Your task to perform on an android device: Go to Android settings Image 0: 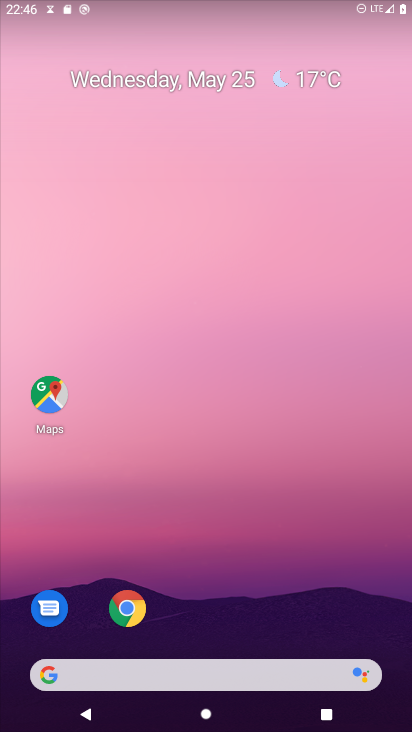
Step 0: drag from (235, 379) to (183, 25)
Your task to perform on an android device: Go to Android settings Image 1: 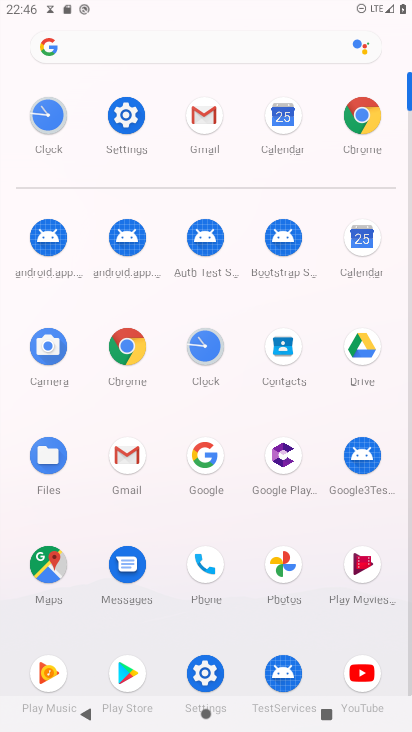
Step 1: click (117, 118)
Your task to perform on an android device: Go to Android settings Image 2: 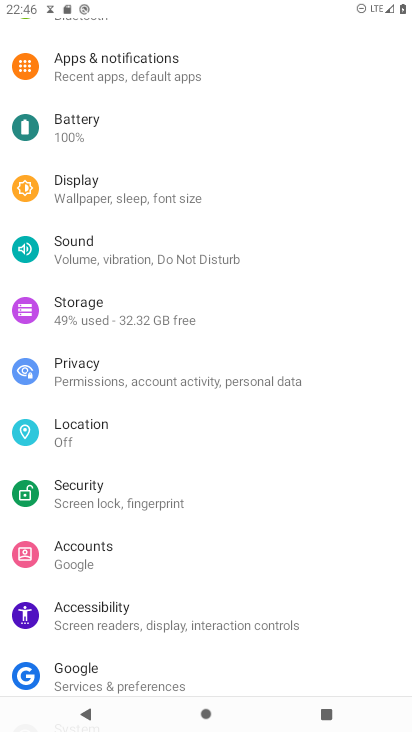
Step 2: drag from (273, 410) to (238, 2)
Your task to perform on an android device: Go to Android settings Image 3: 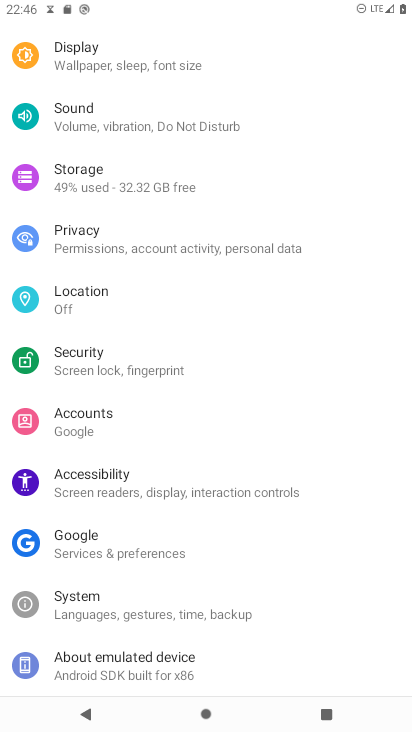
Step 3: click (219, 655)
Your task to perform on an android device: Go to Android settings Image 4: 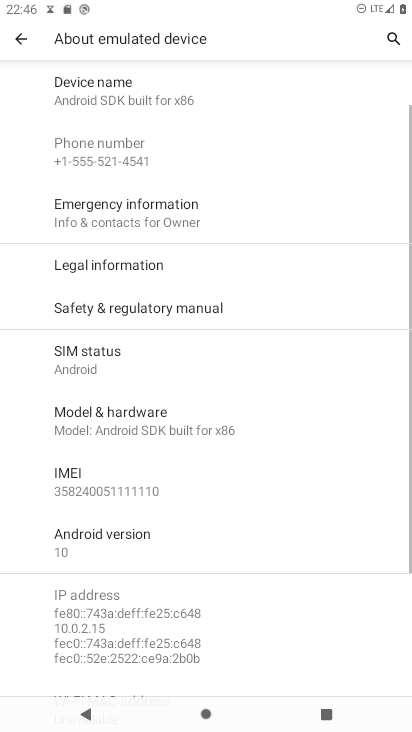
Step 4: click (159, 536)
Your task to perform on an android device: Go to Android settings Image 5: 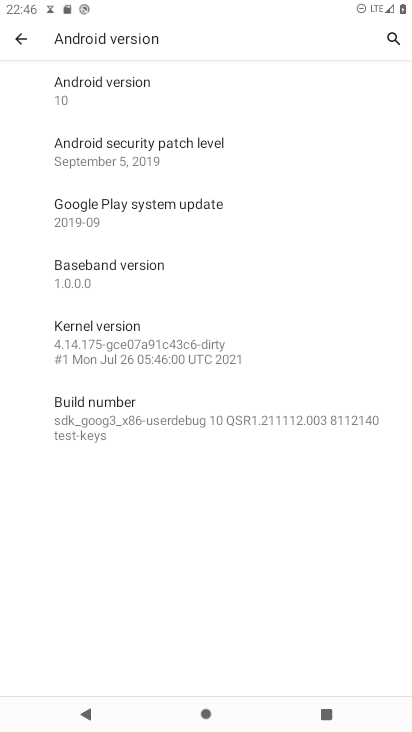
Step 5: task complete